Your task to perform on an android device: Open eBay Image 0: 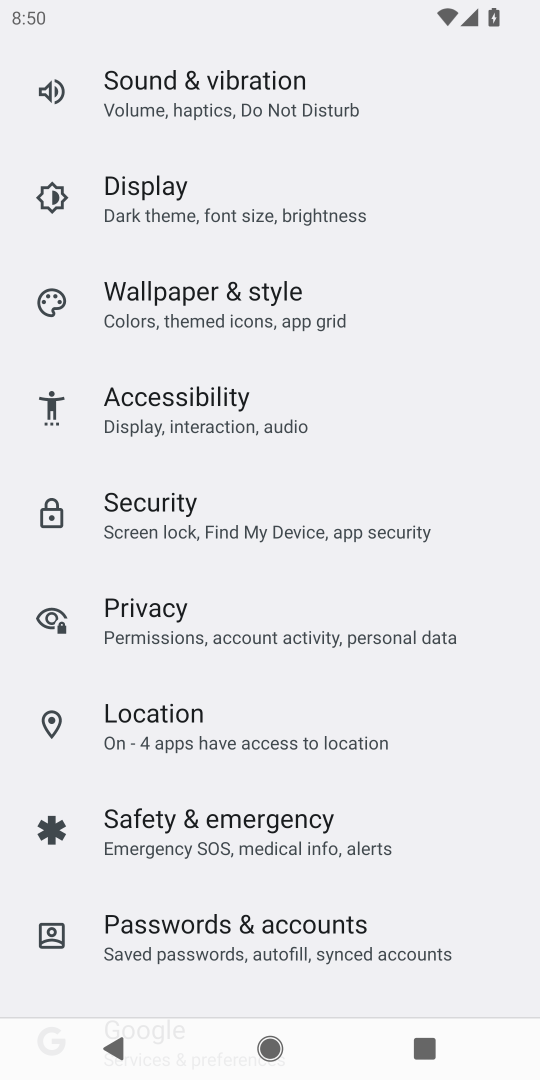
Step 0: press home button
Your task to perform on an android device: Open eBay Image 1: 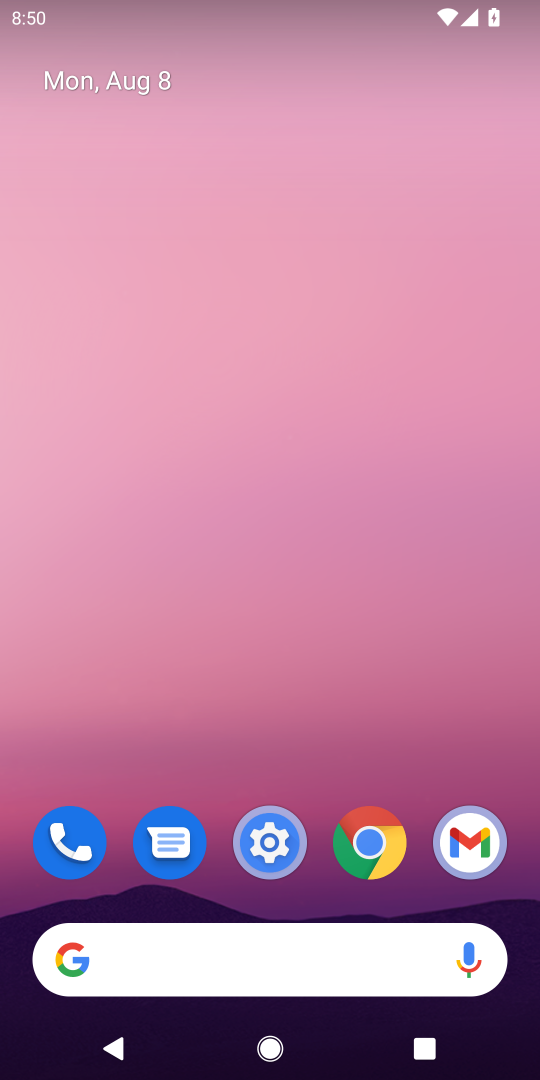
Step 1: click (372, 819)
Your task to perform on an android device: Open eBay Image 2: 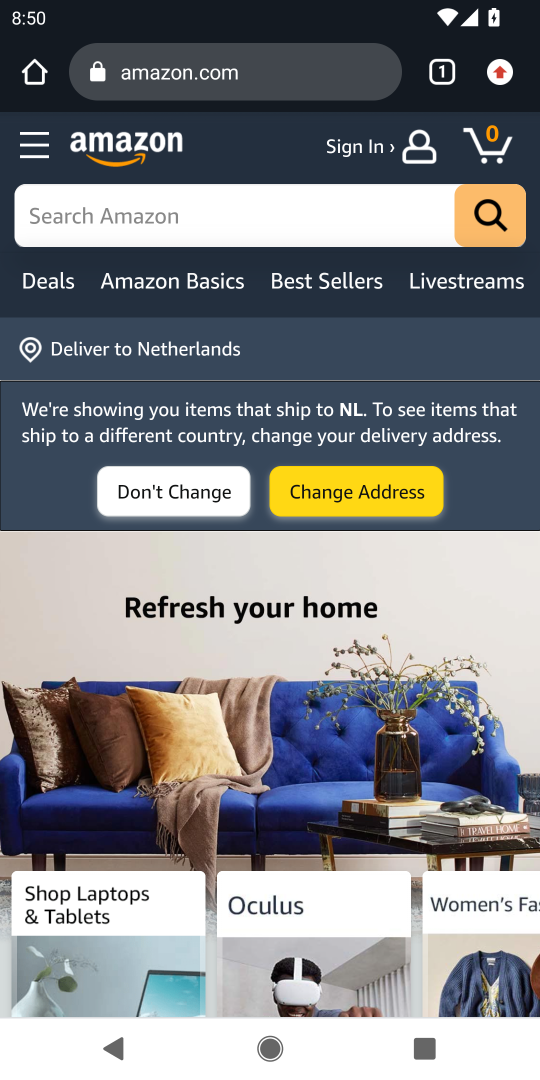
Step 2: click (251, 89)
Your task to perform on an android device: Open eBay Image 3: 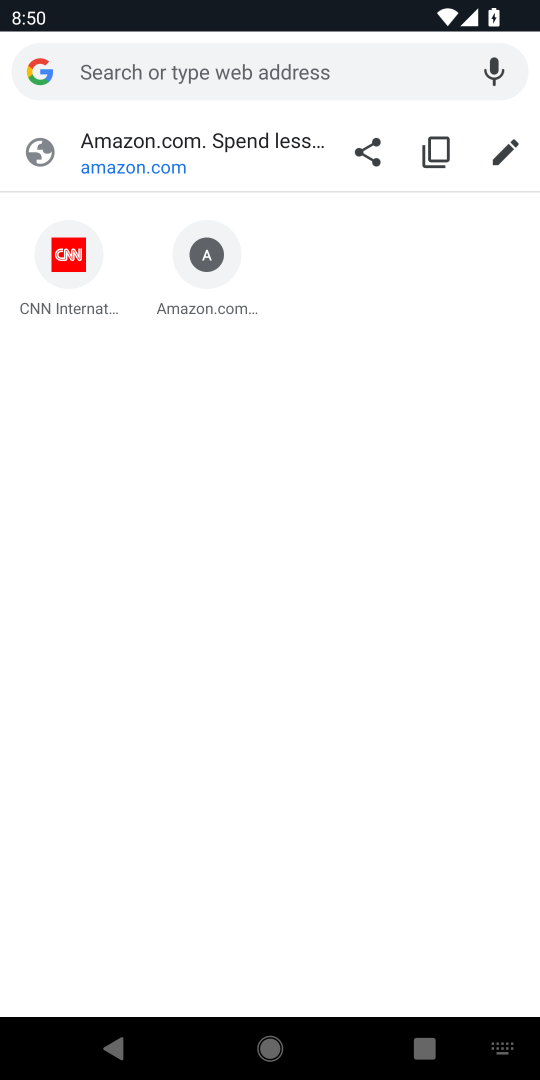
Step 3: type "ebay"
Your task to perform on an android device: Open eBay Image 4: 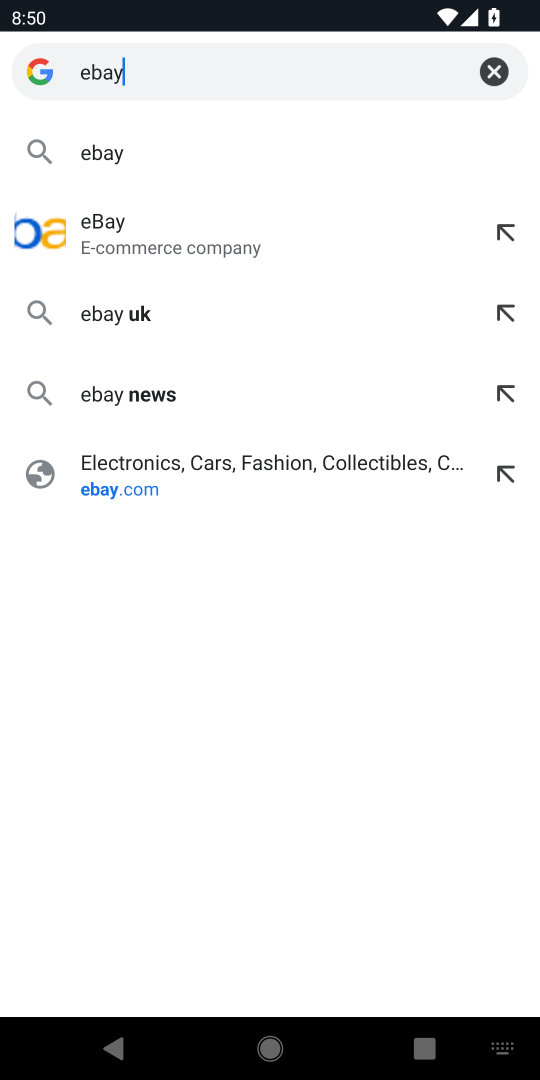
Step 4: click (110, 169)
Your task to perform on an android device: Open eBay Image 5: 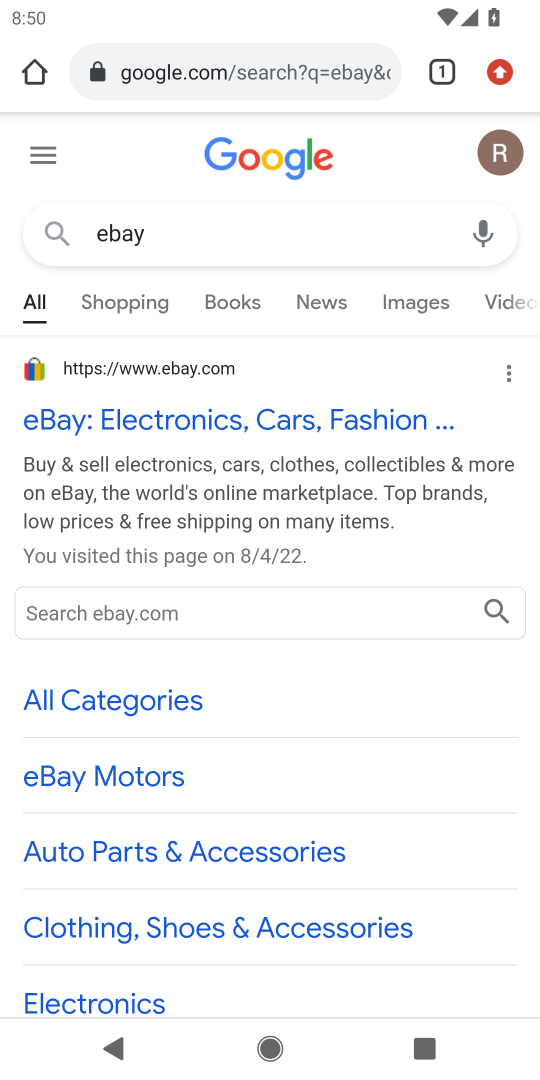
Step 5: click (201, 422)
Your task to perform on an android device: Open eBay Image 6: 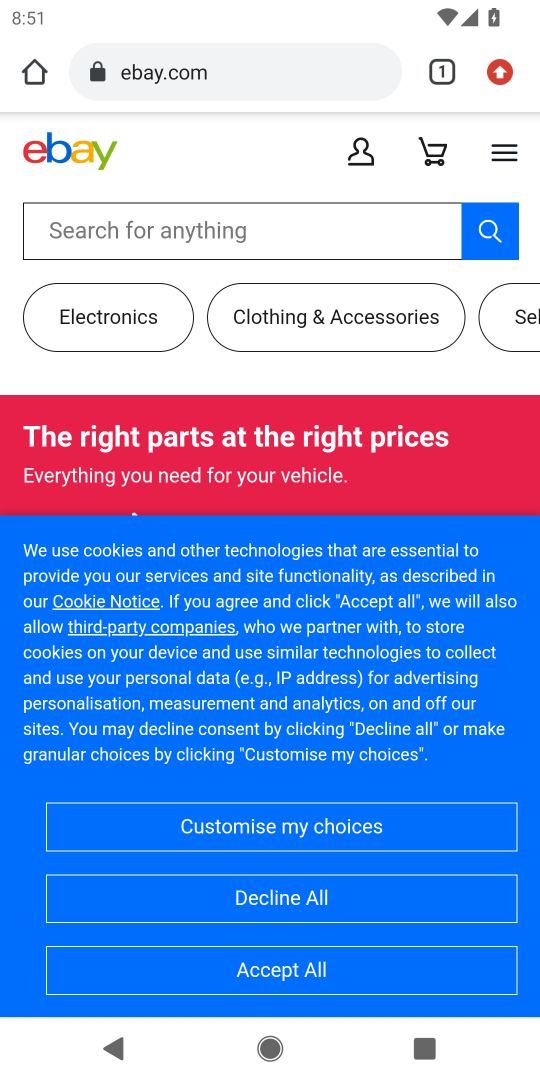
Step 6: task complete